Your task to perform on an android device: Open a new incognito tab in the chrome app Image 0: 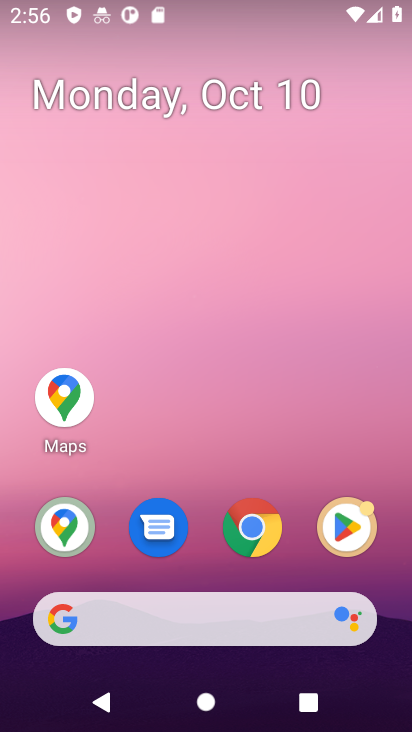
Step 0: click (251, 525)
Your task to perform on an android device: Open a new incognito tab in the chrome app Image 1: 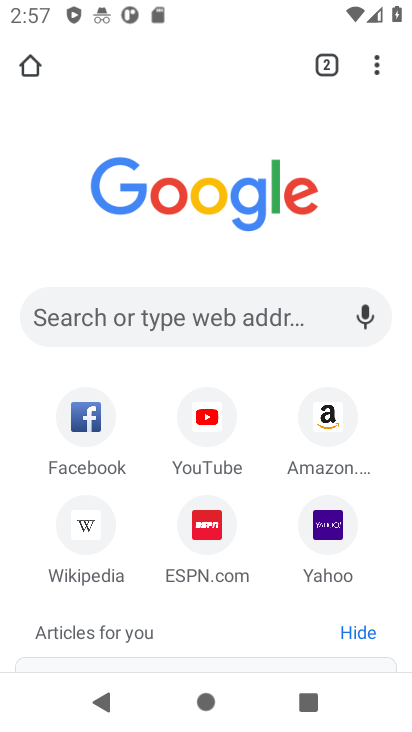
Step 1: click (374, 68)
Your task to perform on an android device: Open a new incognito tab in the chrome app Image 2: 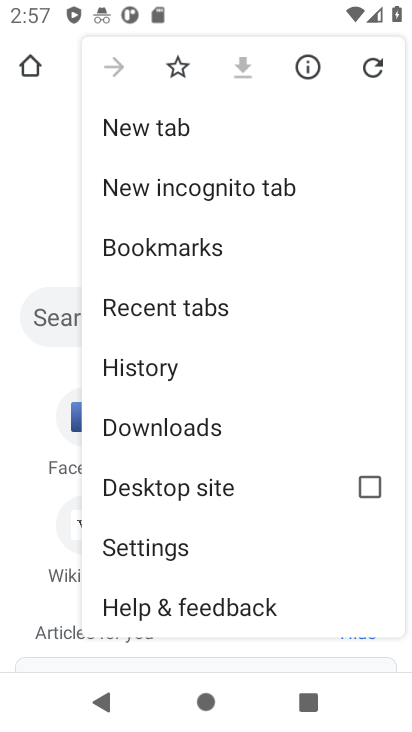
Step 2: click (277, 189)
Your task to perform on an android device: Open a new incognito tab in the chrome app Image 3: 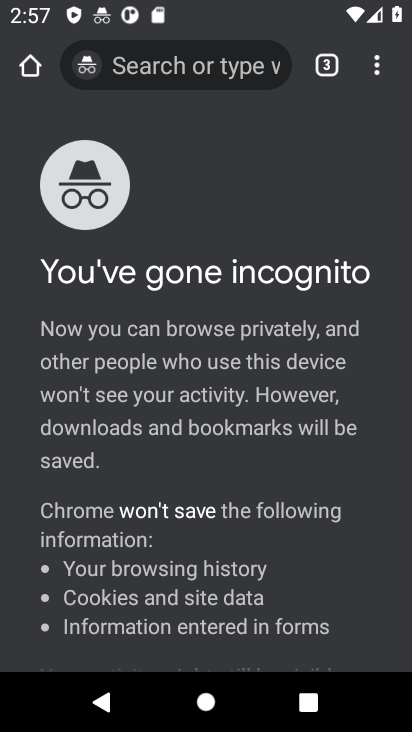
Step 3: task complete